Your task to perform on an android device: toggle priority inbox in the gmail app Image 0: 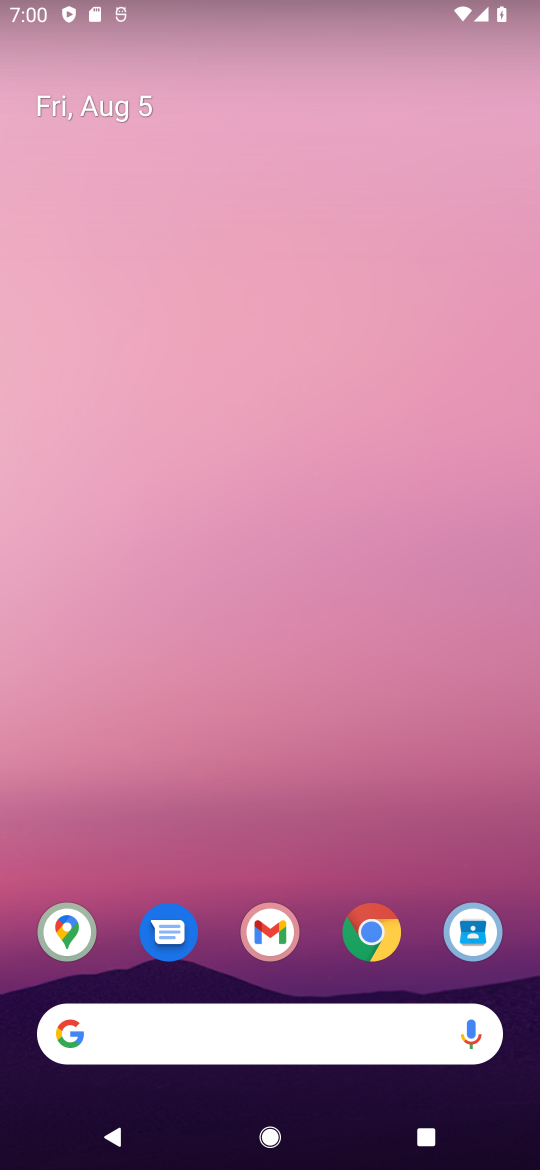
Step 0: press home button
Your task to perform on an android device: toggle priority inbox in the gmail app Image 1: 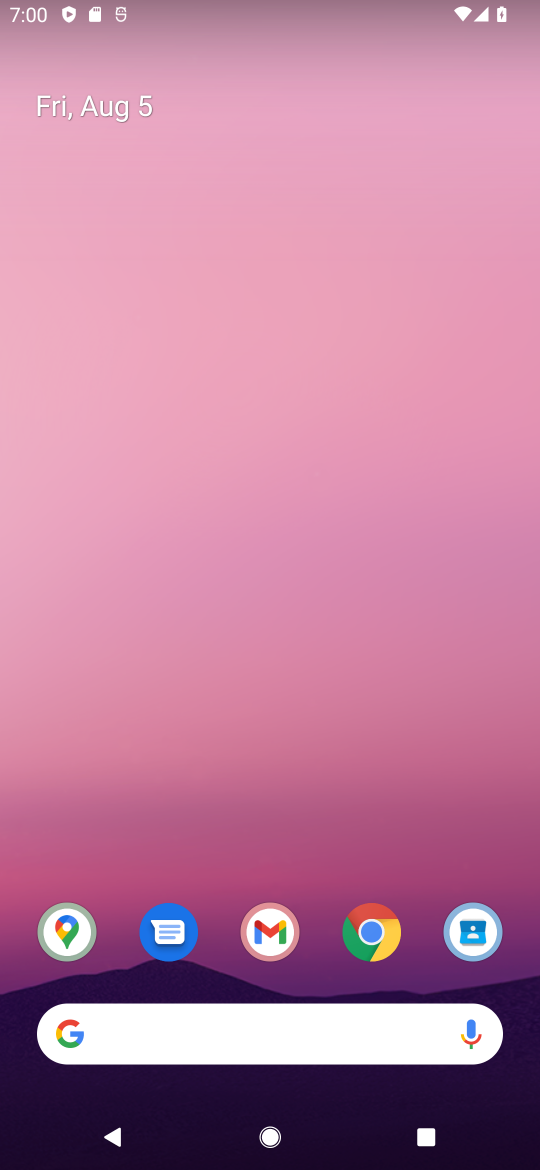
Step 1: drag from (375, 791) to (319, 156)
Your task to perform on an android device: toggle priority inbox in the gmail app Image 2: 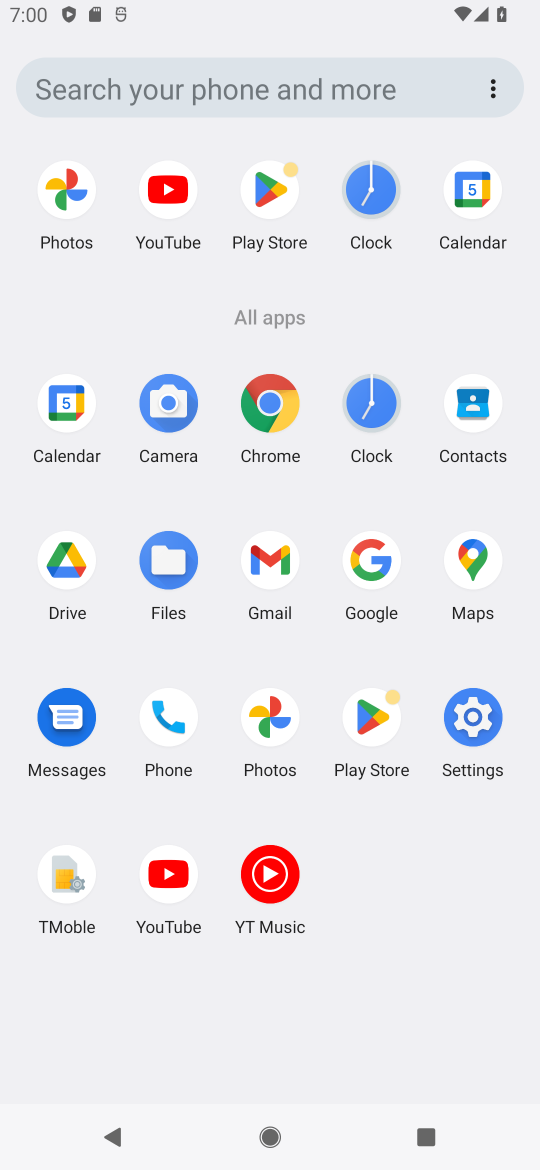
Step 2: click (269, 550)
Your task to perform on an android device: toggle priority inbox in the gmail app Image 3: 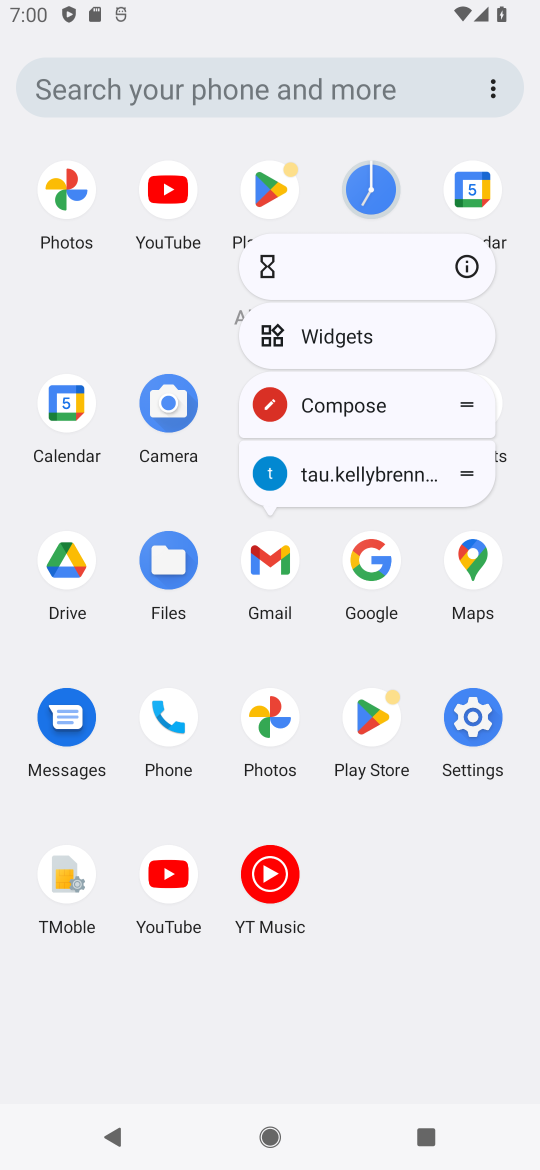
Step 3: click (275, 566)
Your task to perform on an android device: toggle priority inbox in the gmail app Image 4: 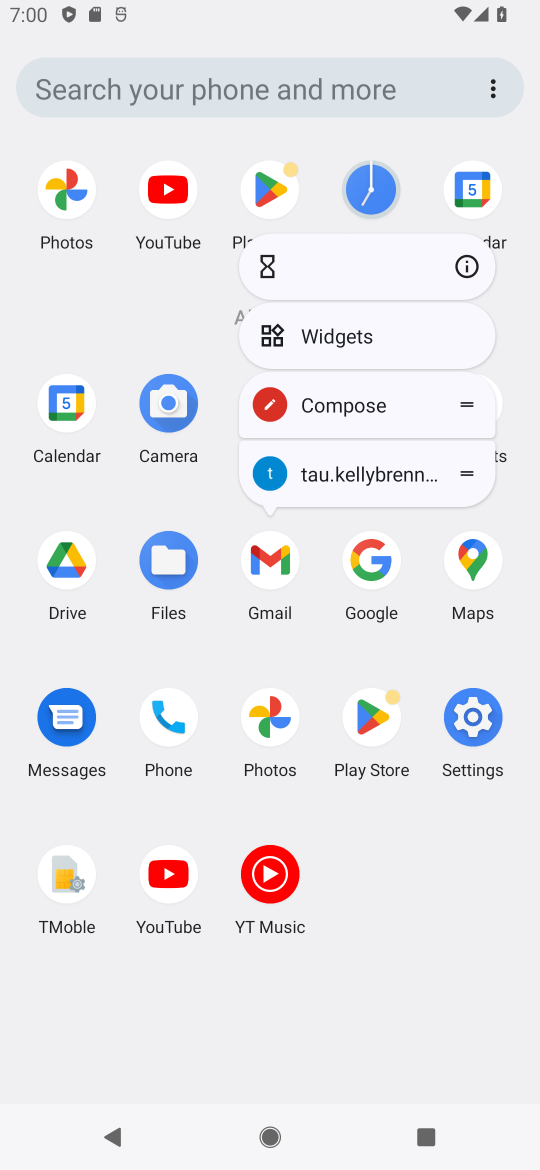
Step 4: click (258, 563)
Your task to perform on an android device: toggle priority inbox in the gmail app Image 5: 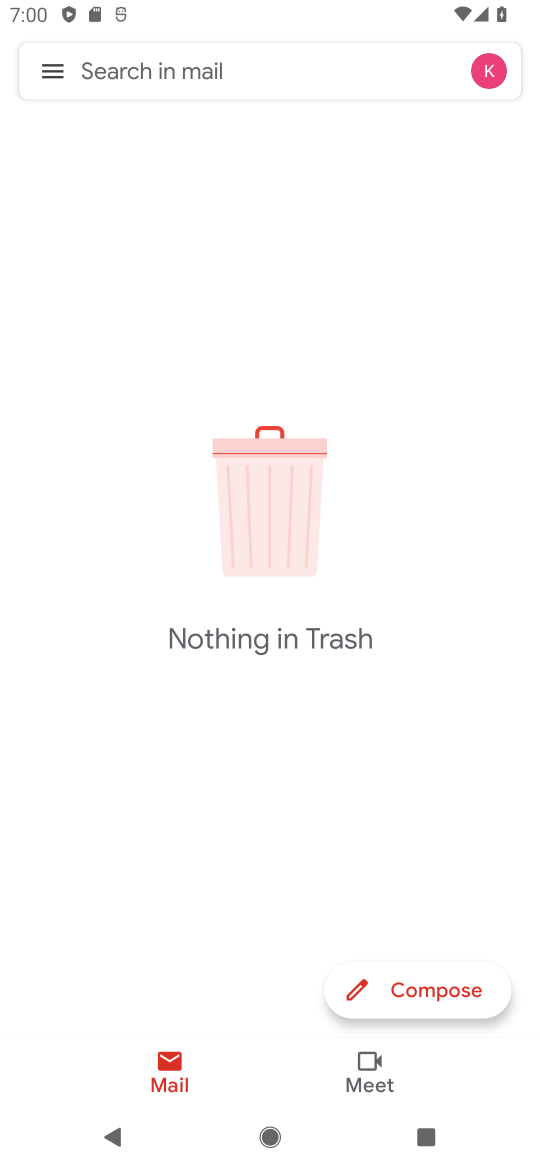
Step 5: click (53, 72)
Your task to perform on an android device: toggle priority inbox in the gmail app Image 6: 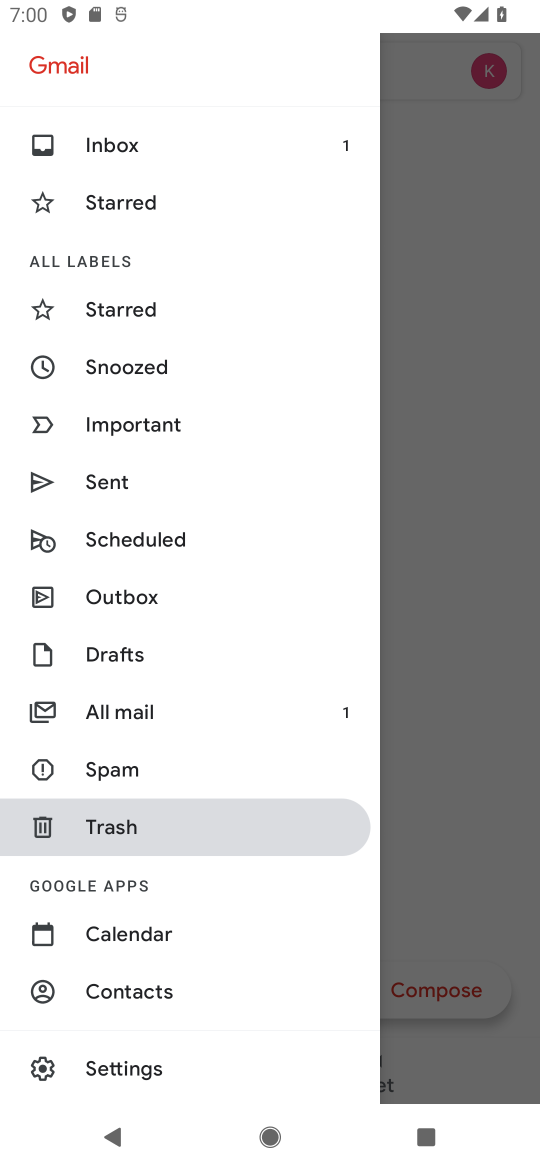
Step 6: drag from (150, 972) to (225, 282)
Your task to perform on an android device: toggle priority inbox in the gmail app Image 7: 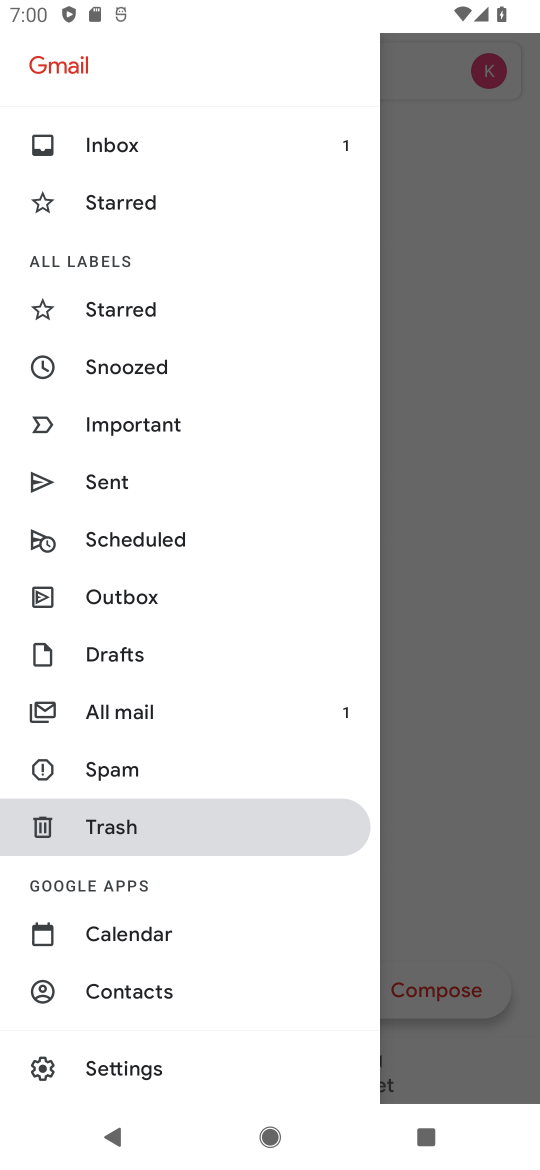
Step 7: click (89, 1065)
Your task to perform on an android device: toggle priority inbox in the gmail app Image 8: 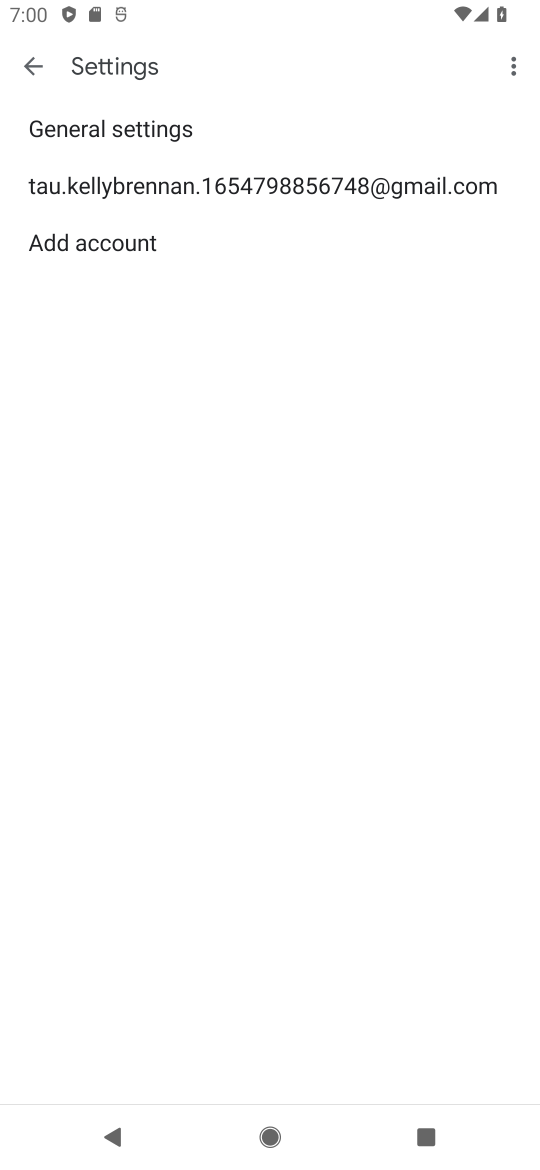
Step 8: click (310, 178)
Your task to perform on an android device: toggle priority inbox in the gmail app Image 9: 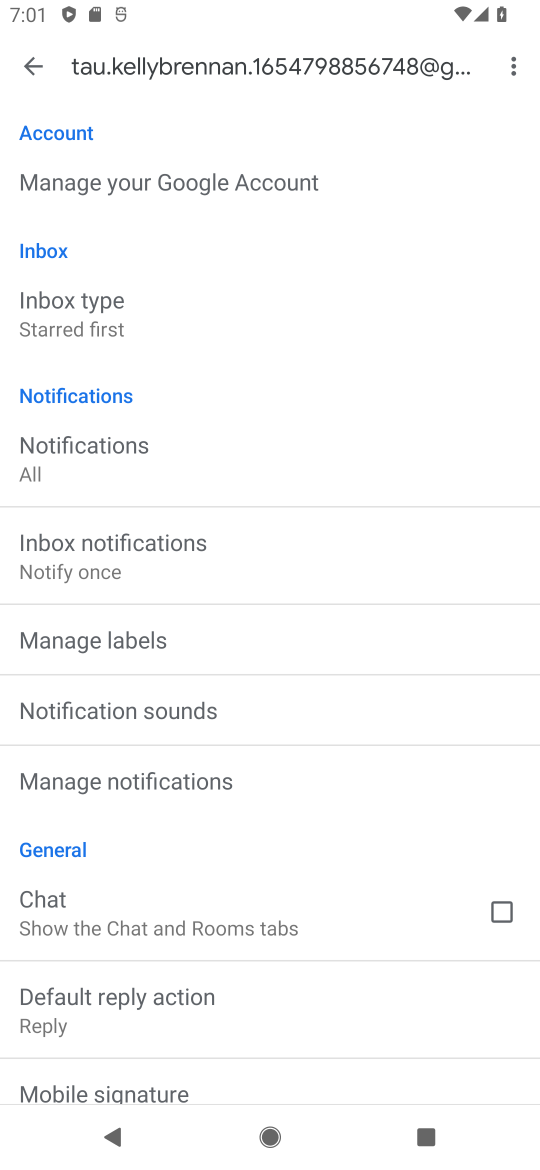
Step 9: click (67, 294)
Your task to perform on an android device: toggle priority inbox in the gmail app Image 10: 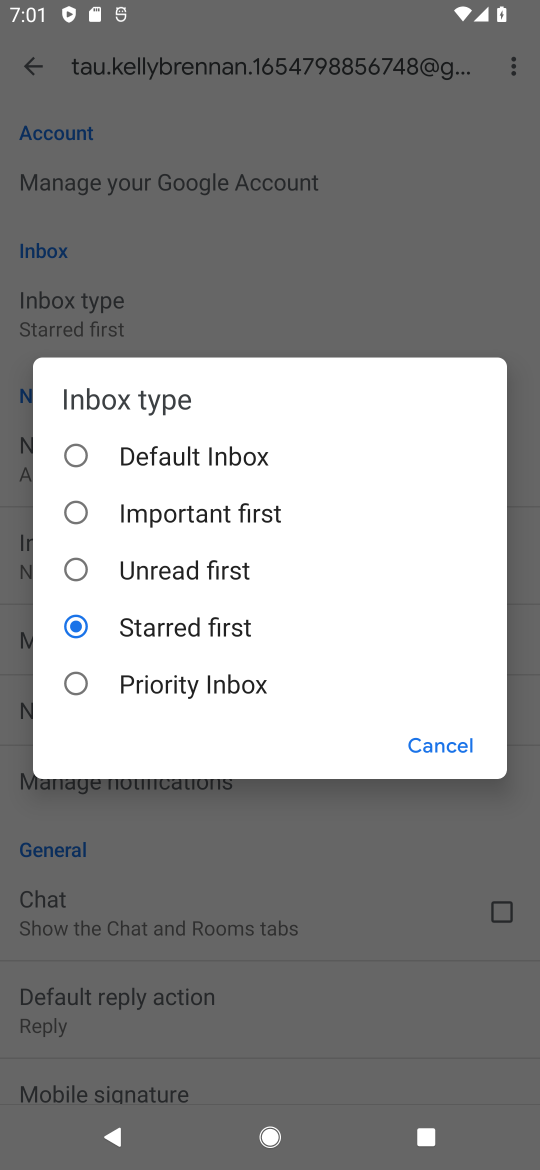
Step 10: click (170, 691)
Your task to perform on an android device: toggle priority inbox in the gmail app Image 11: 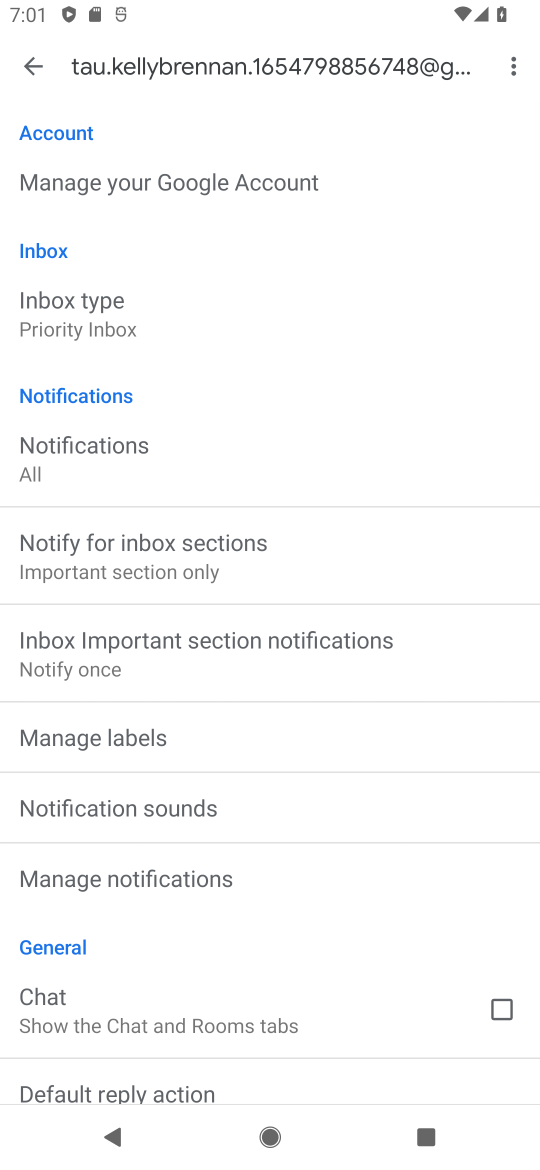
Step 11: task complete